Your task to perform on an android device: open device folders in google photos Image 0: 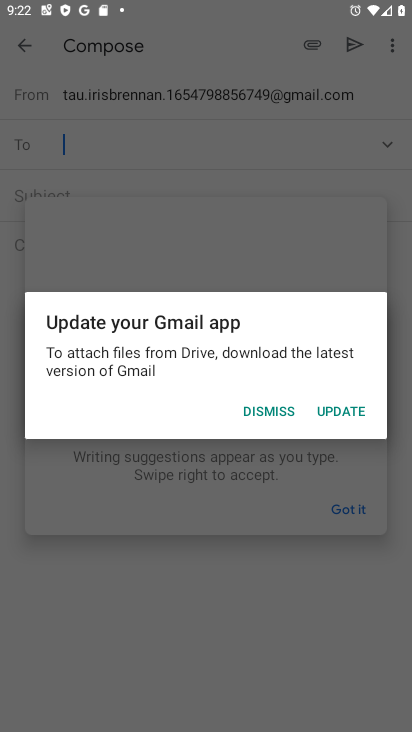
Step 0: press home button
Your task to perform on an android device: open device folders in google photos Image 1: 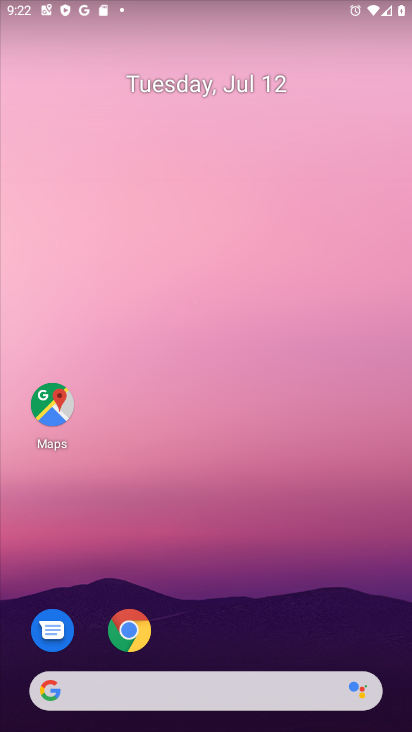
Step 1: drag from (205, 594) to (221, 127)
Your task to perform on an android device: open device folders in google photos Image 2: 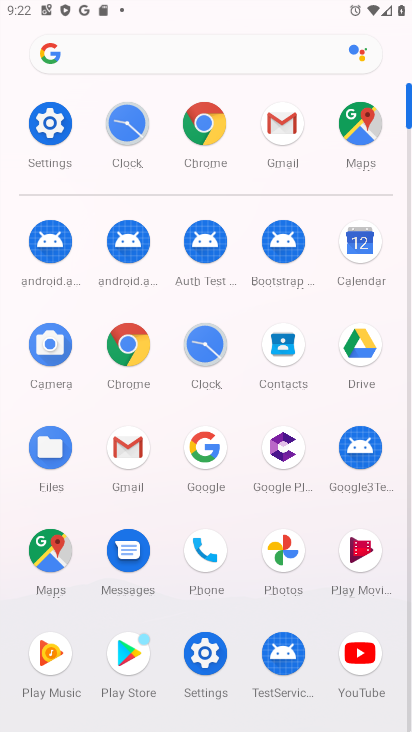
Step 2: click (283, 553)
Your task to perform on an android device: open device folders in google photos Image 3: 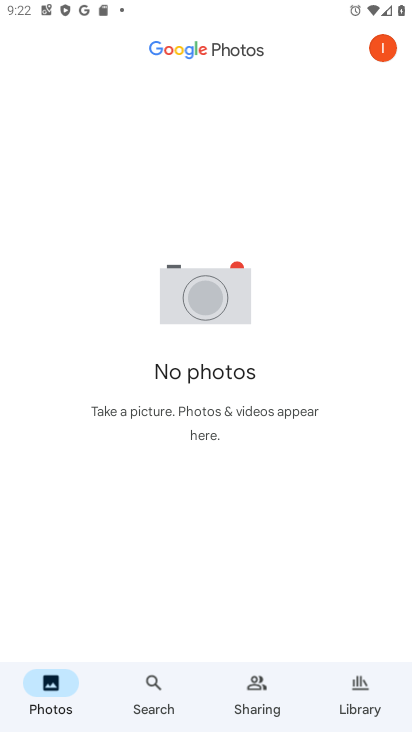
Step 3: click (385, 48)
Your task to perform on an android device: open device folders in google photos Image 4: 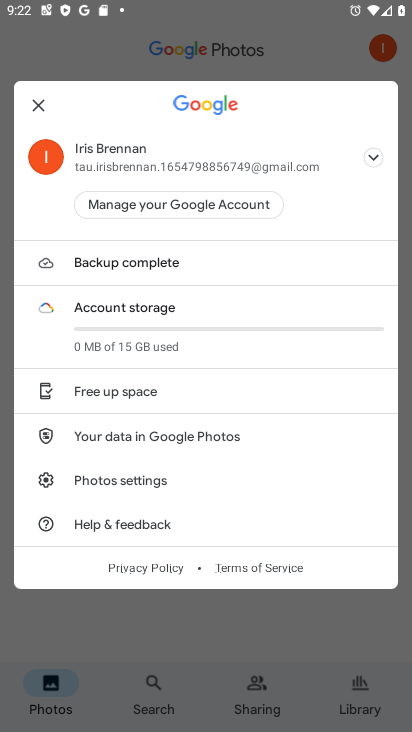
Step 4: task complete